Your task to perform on an android device: open a bookmark in the chrome app Image 0: 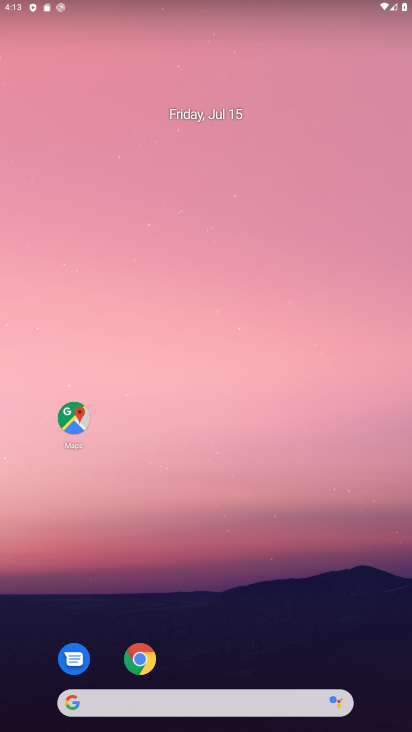
Step 0: drag from (239, 521) to (270, 20)
Your task to perform on an android device: open a bookmark in the chrome app Image 1: 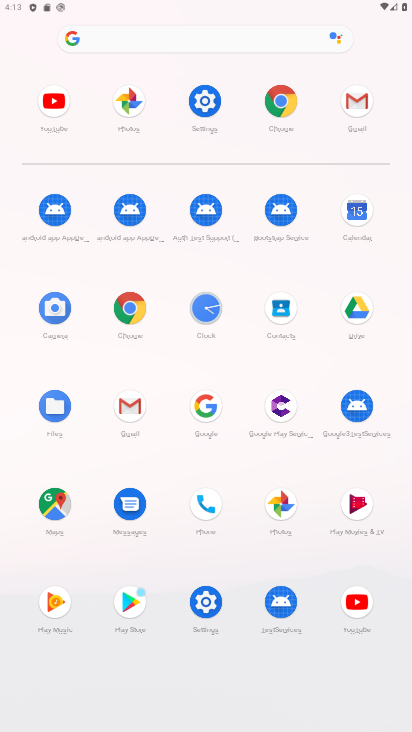
Step 1: click (125, 312)
Your task to perform on an android device: open a bookmark in the chrome app Image 2: 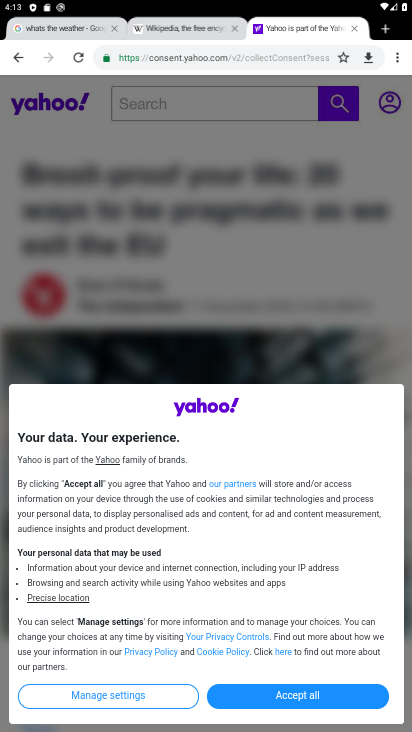
Step 2: task complete